Your task to perform on an android device: open chrome privacy settings Image 0: 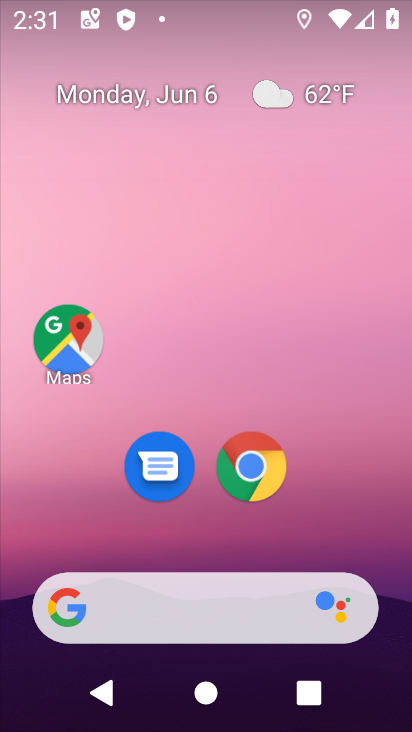
Step 0: drag from (178, 215) to (168, 152)
Your task to perform on an android device: open chrome privacy settings Image 1: 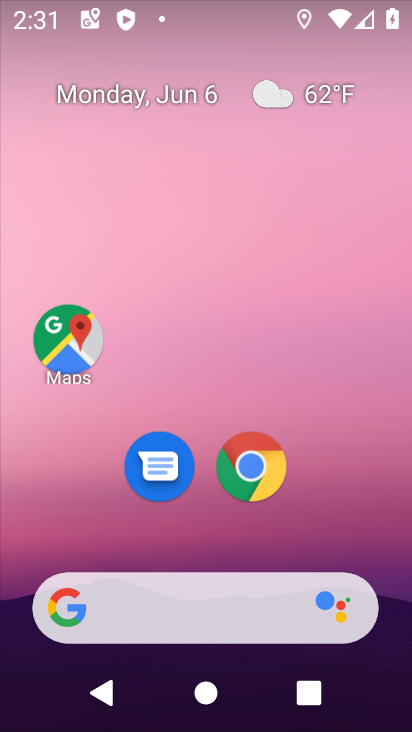
Step 1: drag from (251, 667) to (222, 212)
Your task to perform on an android device: open chrome privacy settings Image 2: 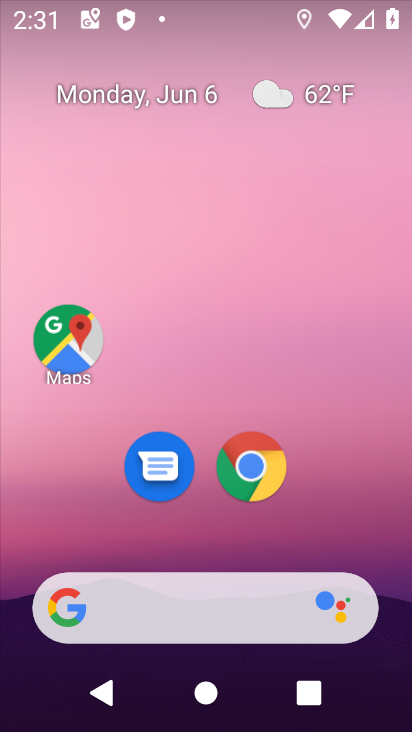
Step 2: drag from (252, 685) to (252, 235)
Your task to perform on an android device: open chrome privacy settings Image 3: 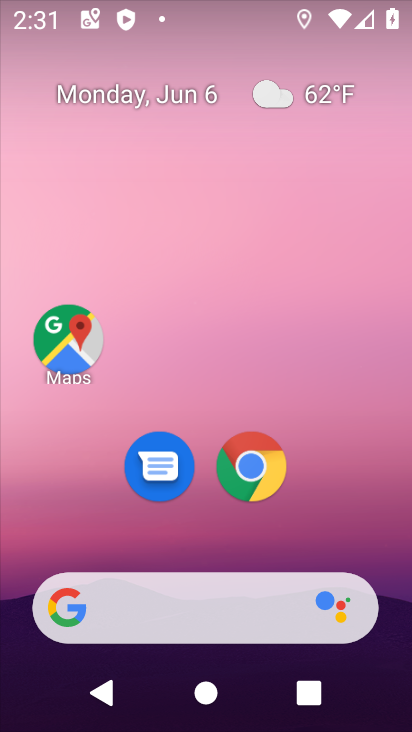
Step 3: drag from (244, 470) to (219, 246)
Your task to perform on an android device: open chrome privacy settings Image 4: 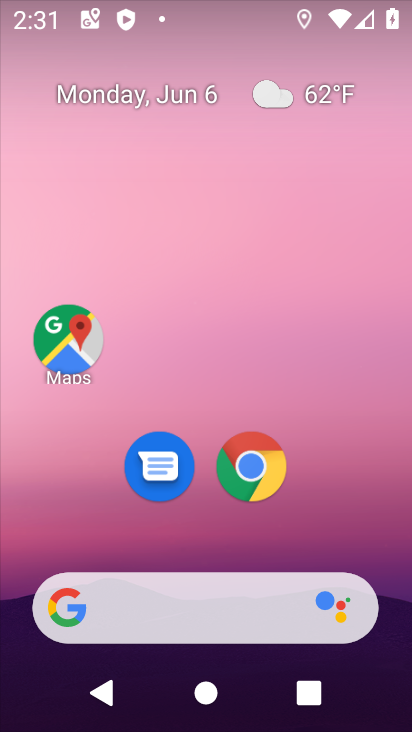
Step 4: drag from (224, 673) to (47, 160)
Your task to perform on an android device: open chrome privacy settings Image 5: 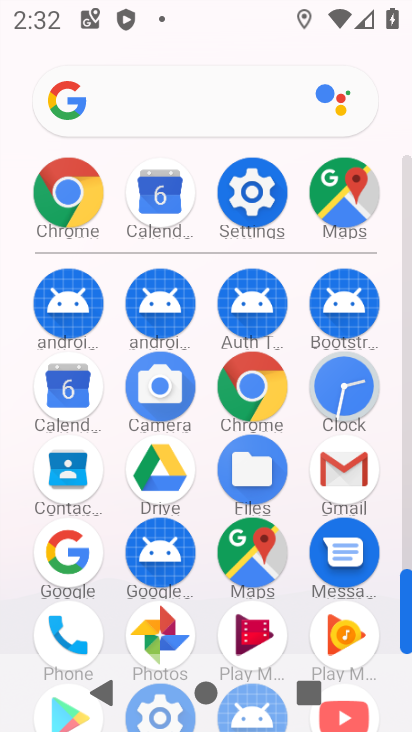
Step 5: click (244, 189)
Your task to perform on an android device: open chrome privacy settings Image 6: 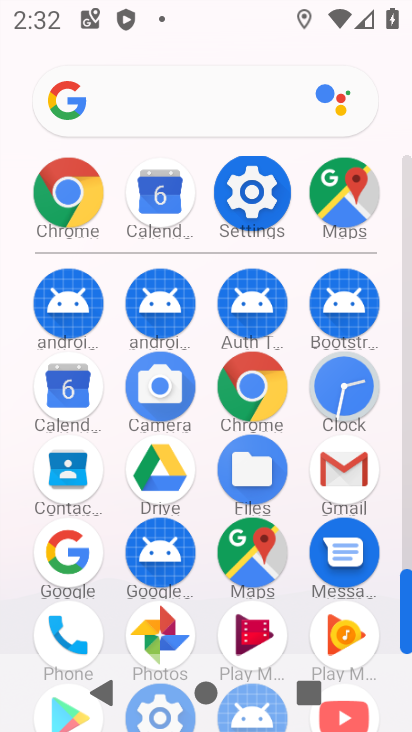
Step 6: click (241, 190)
Your task to perform on an android device: open chrome privacy settings Image 7: 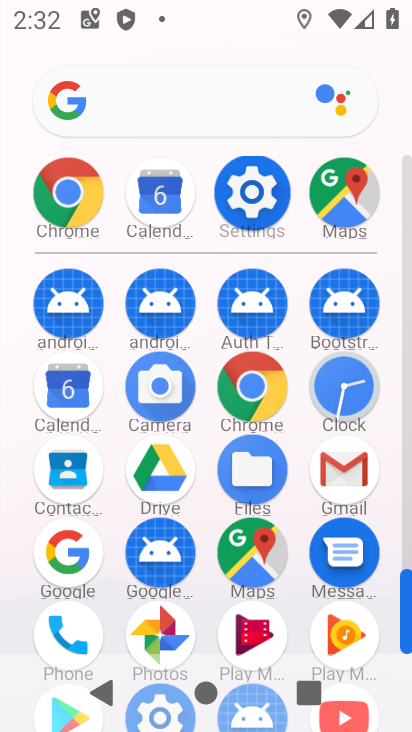
Step 7: click (241, 190)
Your task to perform on an android device: open chrome privacy settings Image 8: 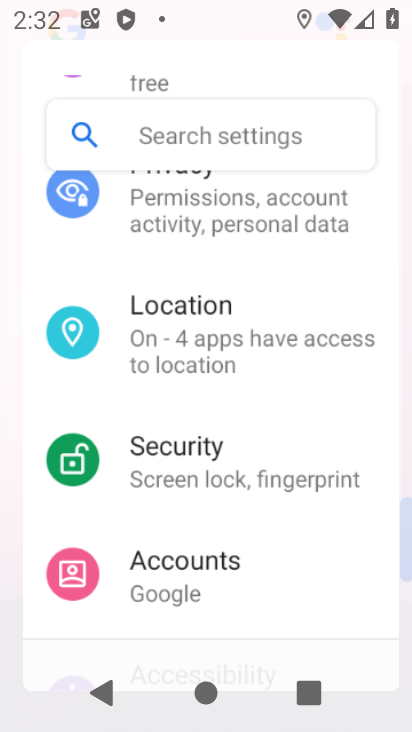
Step 8: click (240, 194)
Your task to perform on an android device: open chrome privacy settings Image 9: 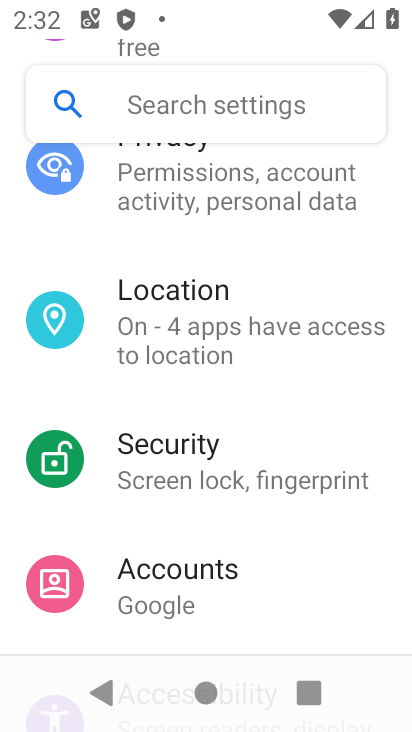
Step 9: press back button
Your task to perform on an android device: open chrome privacy settings Image 10: 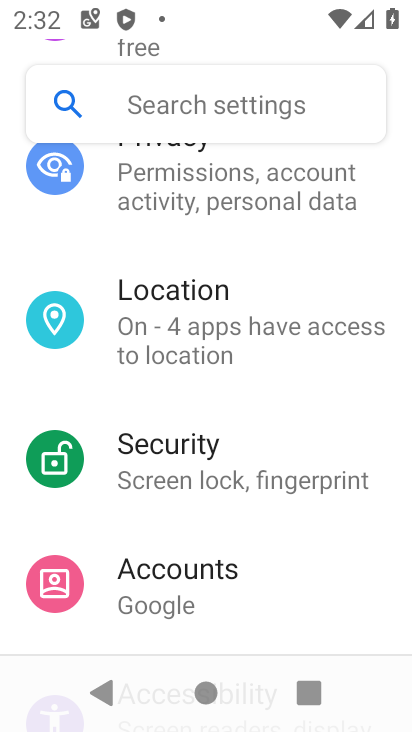
Step 10: press back button
Your task to perform on an android device: open chrome privacy settings Image 11: 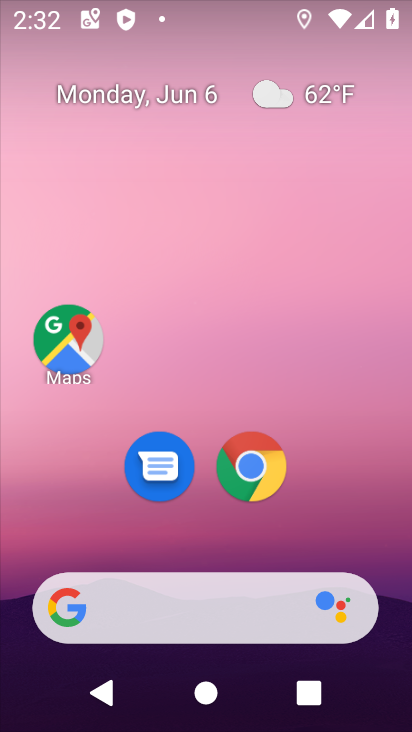
Step 11: drag from (213, 544) to (210, 184)
Your task to perform on an android device: open chrome privacy settings Image 12: 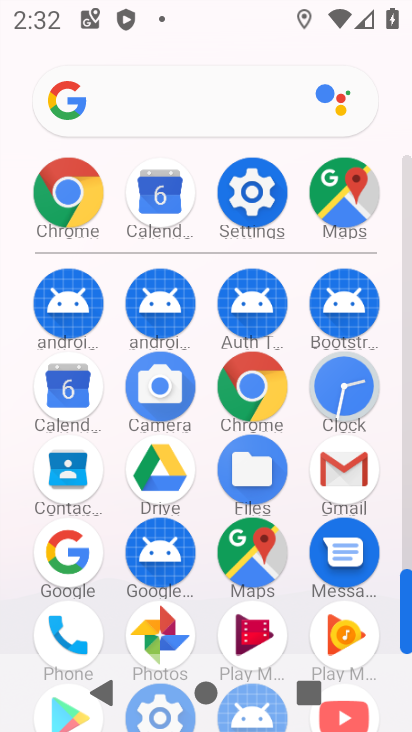
Step 12: click (253, 219)
Your task to perform on an android device: open chrome privacy settings Image 13: 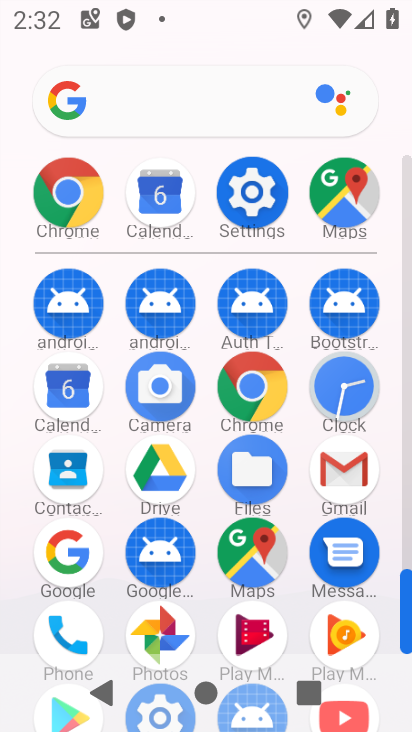
Step 13: click (253, 219)
Your task to perform on an android device: open chrome privacy settings Image 14: 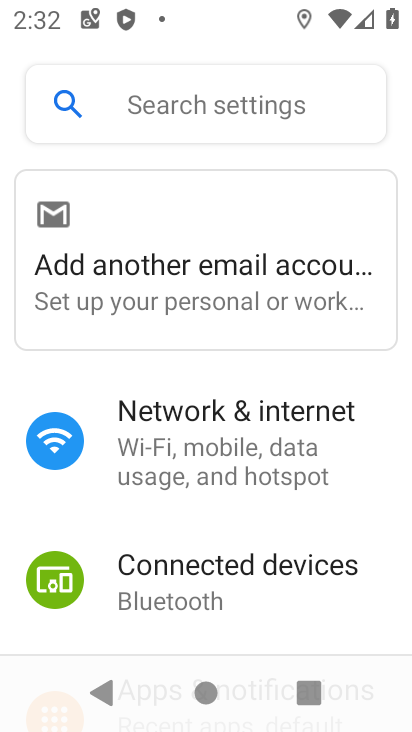
Step 14: drag from (178, 402) to (198, 12)
Your task to perform on an android device: open chrome privacy settings Image 15: 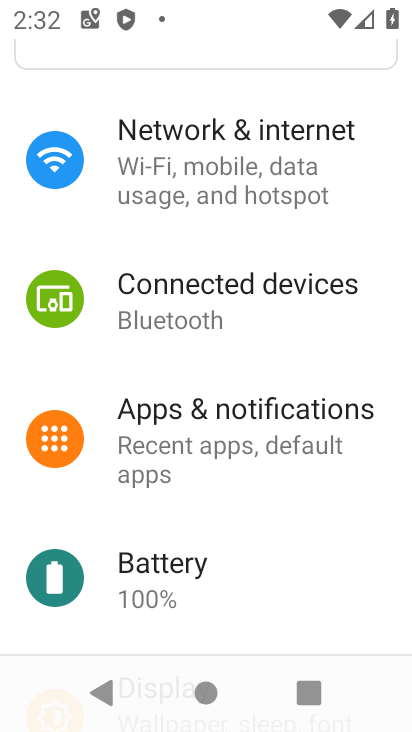
Step 15: press home button
Your task to perform on an android device: open chrome privacy settings Image 16: 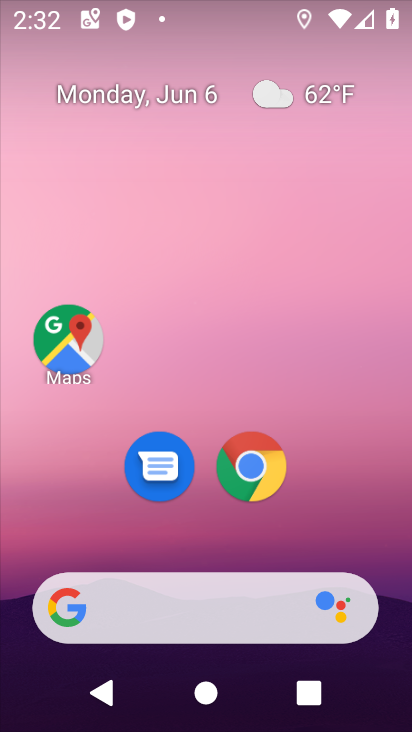
Step 16: drag from (245, 627) to (173, 3)
Your task to perform on an android device: open chrome privacy settings Image 17: 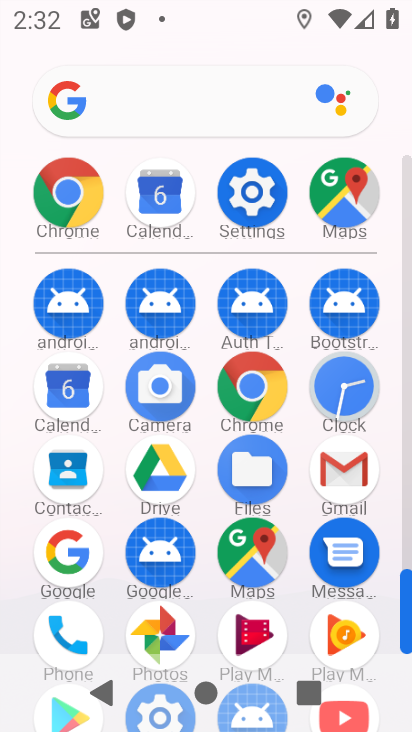
Step 17: click (237, 192)
Your task to perform on an android device: open chrome privacy settings Image 18: 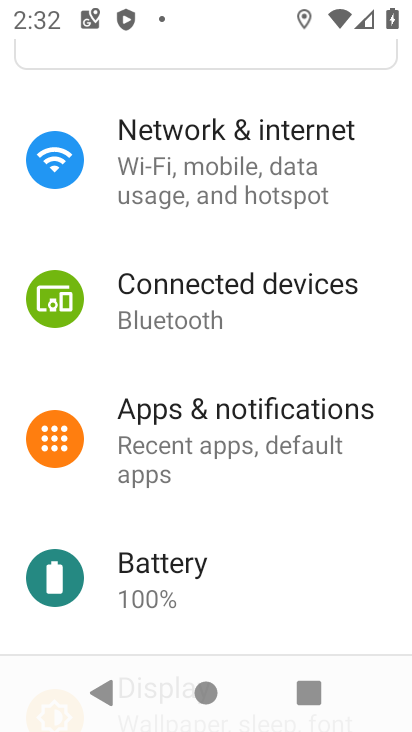
Step 18: press back button
Your task to perform on an android device: open chrome privacy settings Image 19: 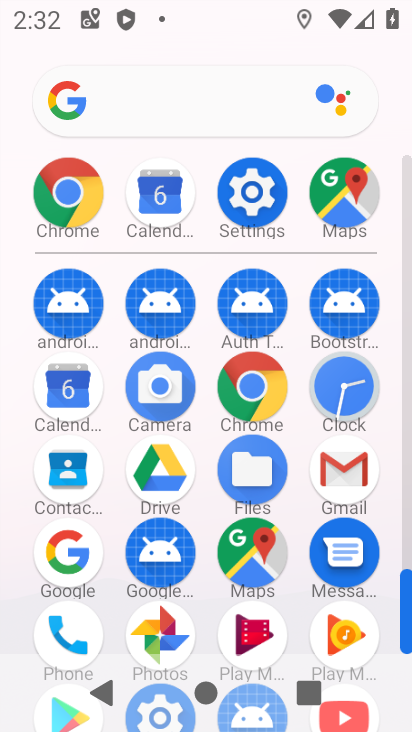
Step 19: click (56, 201)
Your task to perform on an android device: open chrome privacy settings Image 20: 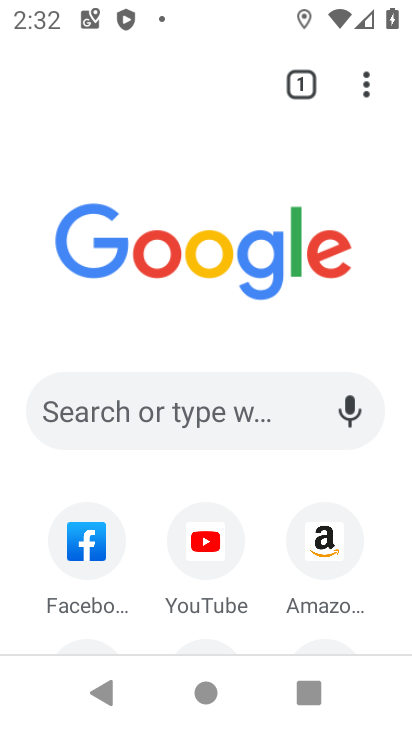
Step 20: click (363, 97)
Your task to perform on an android device: open chrome privacy settings Image 21: 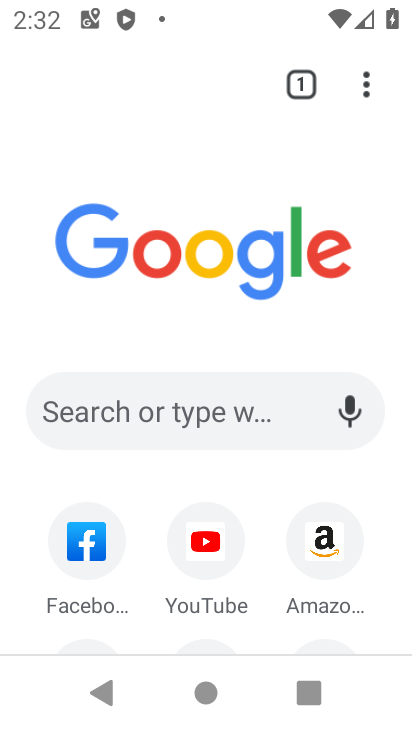
Step 21: click (361, 90)
Your task to perform on an android device: open chrome privacy settings Image 22: 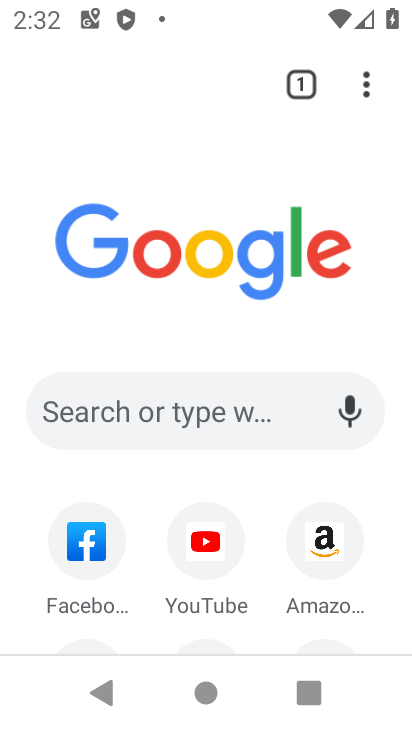
Step 22: click (364, 78)
Your task to perform on an android device: open chrome privacy settings Image 23: 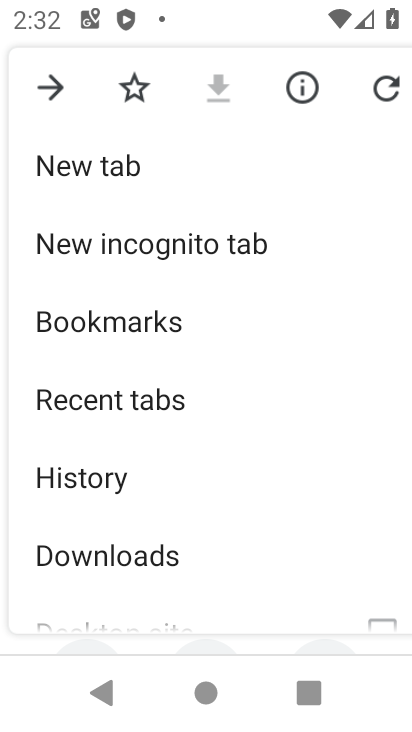
Step 23: drag from (125, 294) to (104, 60)
Your task to perform on an android device: open chrome privacy settings Image 24: 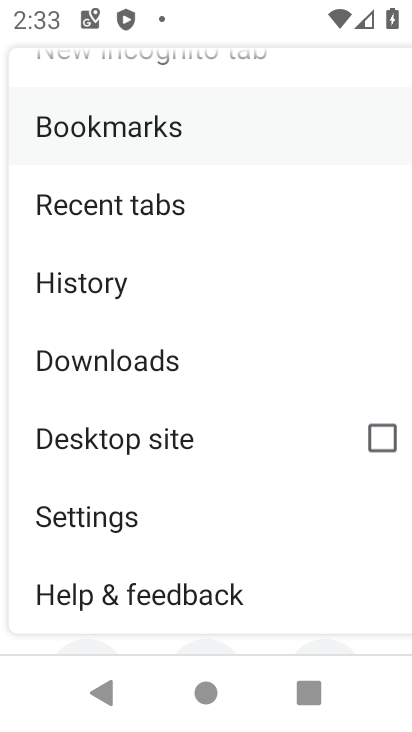
Step 24: click (135, 50)
Your task to perform on an android device: open chrome privacy settings Image 25: 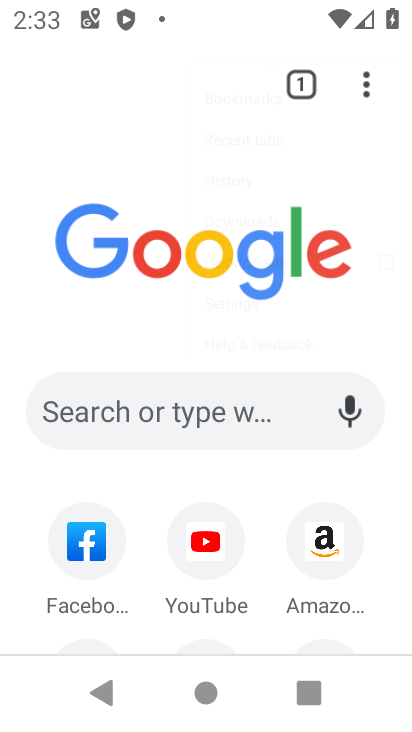
Step 25: click (156, 137)
Your task to perform on an android device: open chrome privacy settings Image 26: 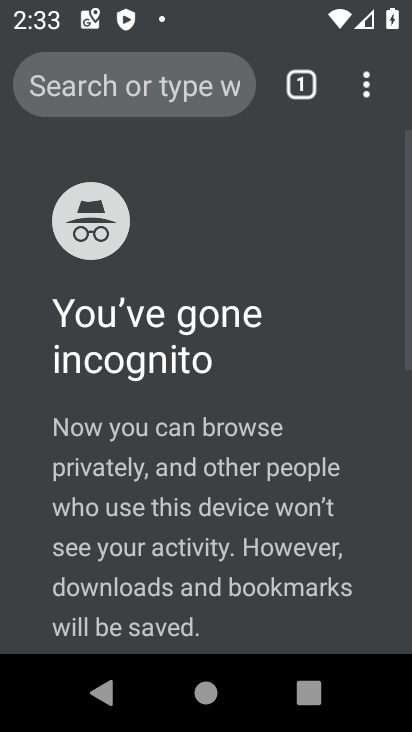
Step 26: click (105, 165)
Your task to perform on an android device: open chrome privacy settings Image 27: 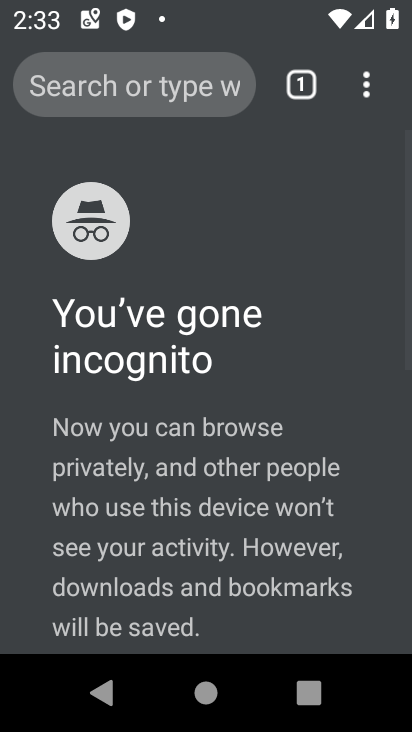
Step 27: click (357, 86)
Your task to perform on an android device: open chrome privacy settings Image 28: 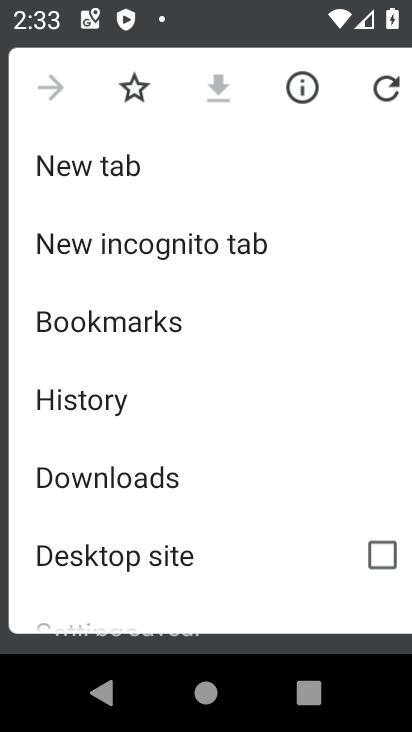
Step 28: click (43, 87)
Your task to perform on an android device: open chrome privacy settings Image 29: 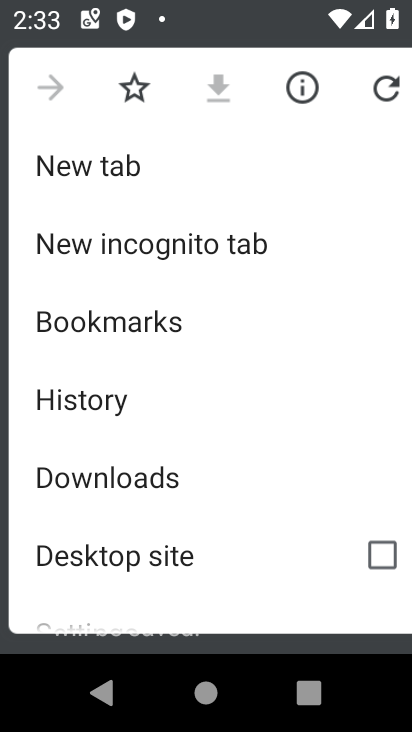
Step 29: drag from (103, 492) to (50, 145)
Your task to perform on an android device: open chrome privacy settings Image 30: 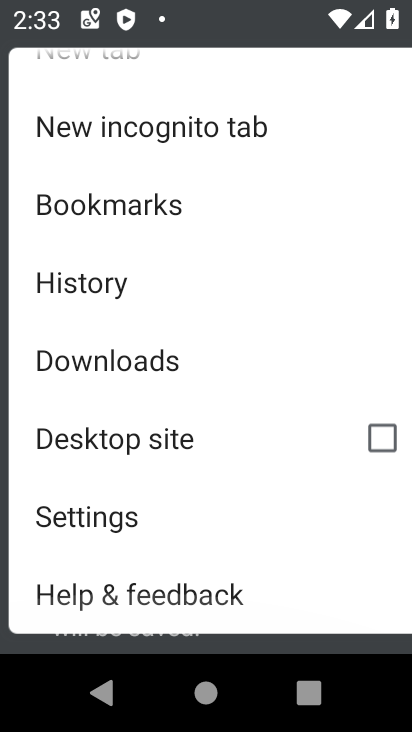
Step 30: drag from (114, 435) to (66, 175)
Your task to perform on an android device: open chrome privacy settings Image 31: 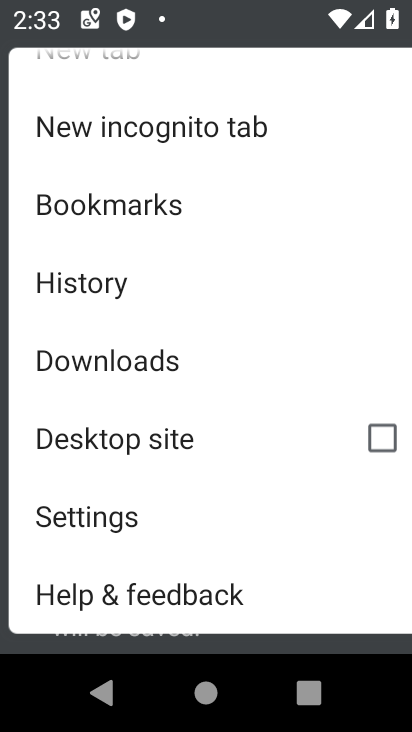
Step 31: click (79, 504)
Your task to perform on an android device: open chrome privacy settings Image 32: 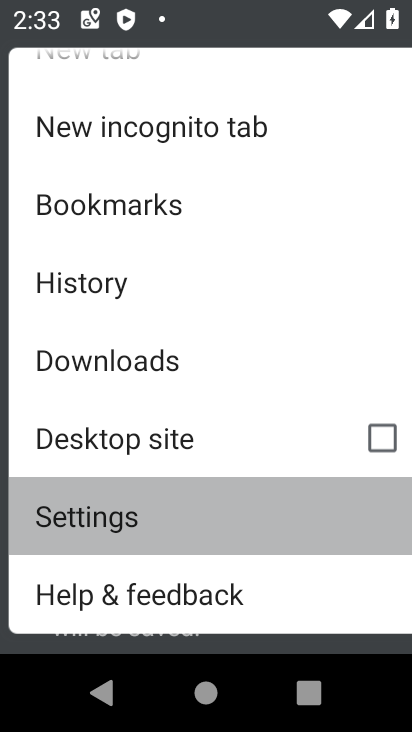
Step 32: click (79, 504)
Your task to perform on an android device: open chrome privacy settings Image 33: 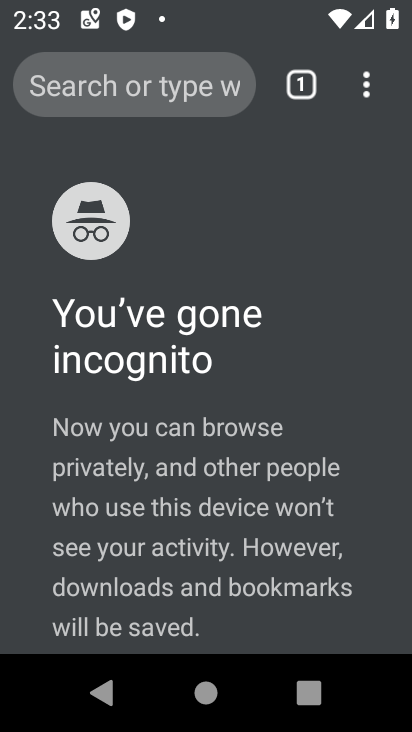
Step 33: click (79, 504)
Your task to perform on an android device: open chrome privacy settings Image 34: 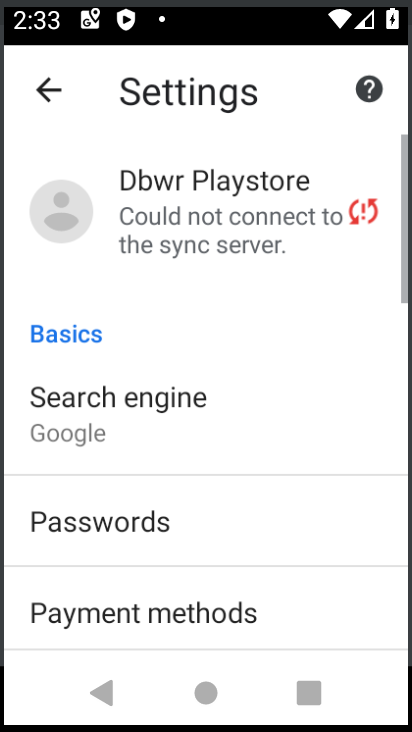
Step 34: click (80, 504)
Your task to perform on an android device: open chrome privacy settings Image 35: 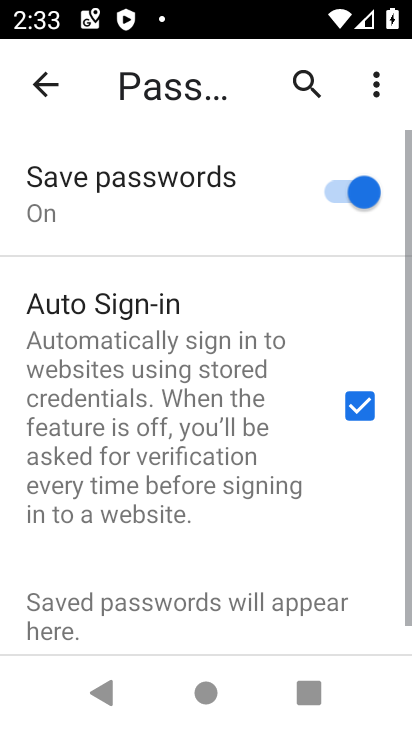
Step 35: drag from (189, 546) to (140, 260)
Your task to perform on an android device: open chrome privacy settings Image 36: 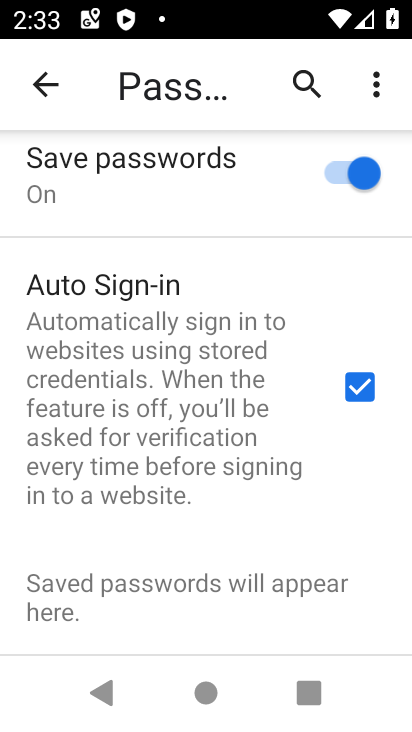
Step 36: click (30, 80)
Your task to perform on an android device: open chrome privacy settings Image 37: 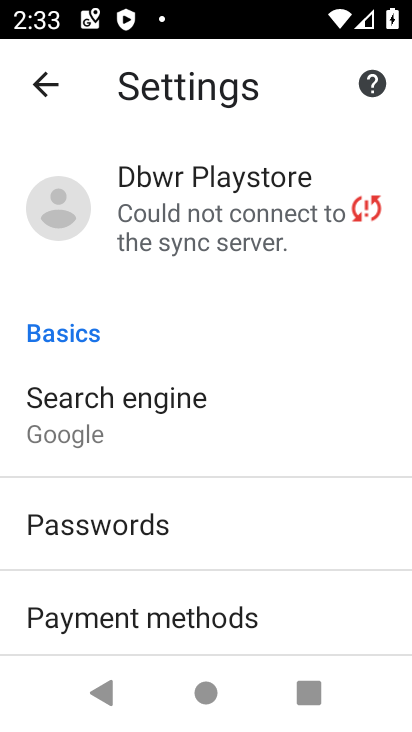
Step 37: drag from (219, 417) to (221, 245)
Your task to perform on an android device: open chrome privacy settings Image 38: 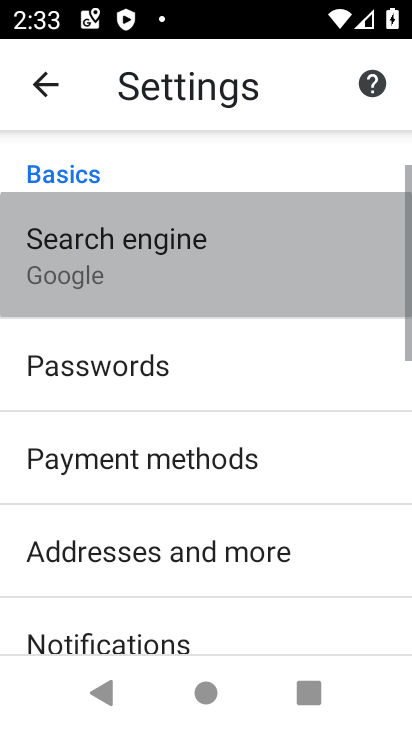
Step 38: drag from (214, 559) to (177, 364)
Your task to perform on an android device: open chrome privacy settings Image 39: 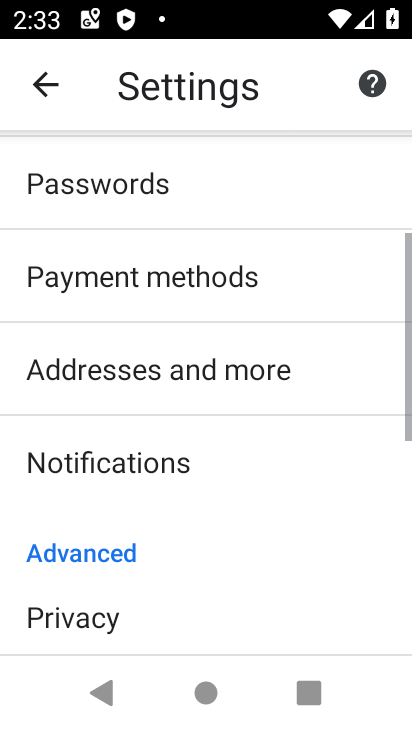
Step 39: drag from (162, 512) to (166, 330)
Your task to perform on an android device: open chrome privacy settings Image 40: 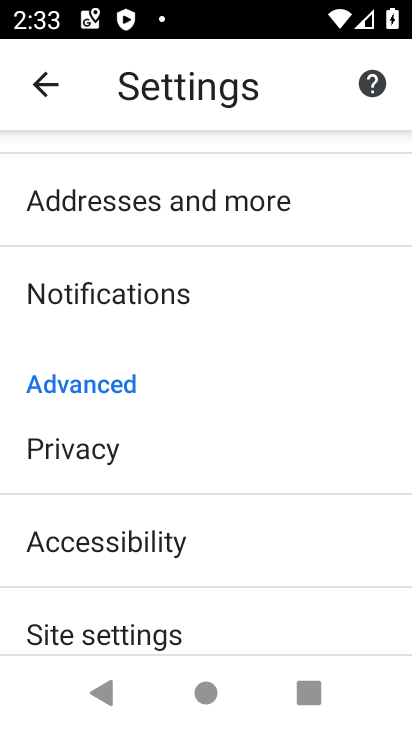
Step 40: click (70, 460)
Your task to perform on an android device: open chrome privacy settings Image 41: 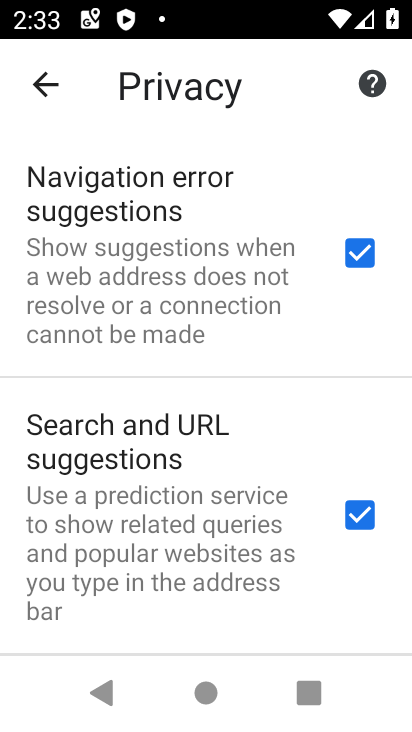
Step 41: task complete